Your task to perform on an android device: Search for seafood restaurants on Google Maps Image 0: 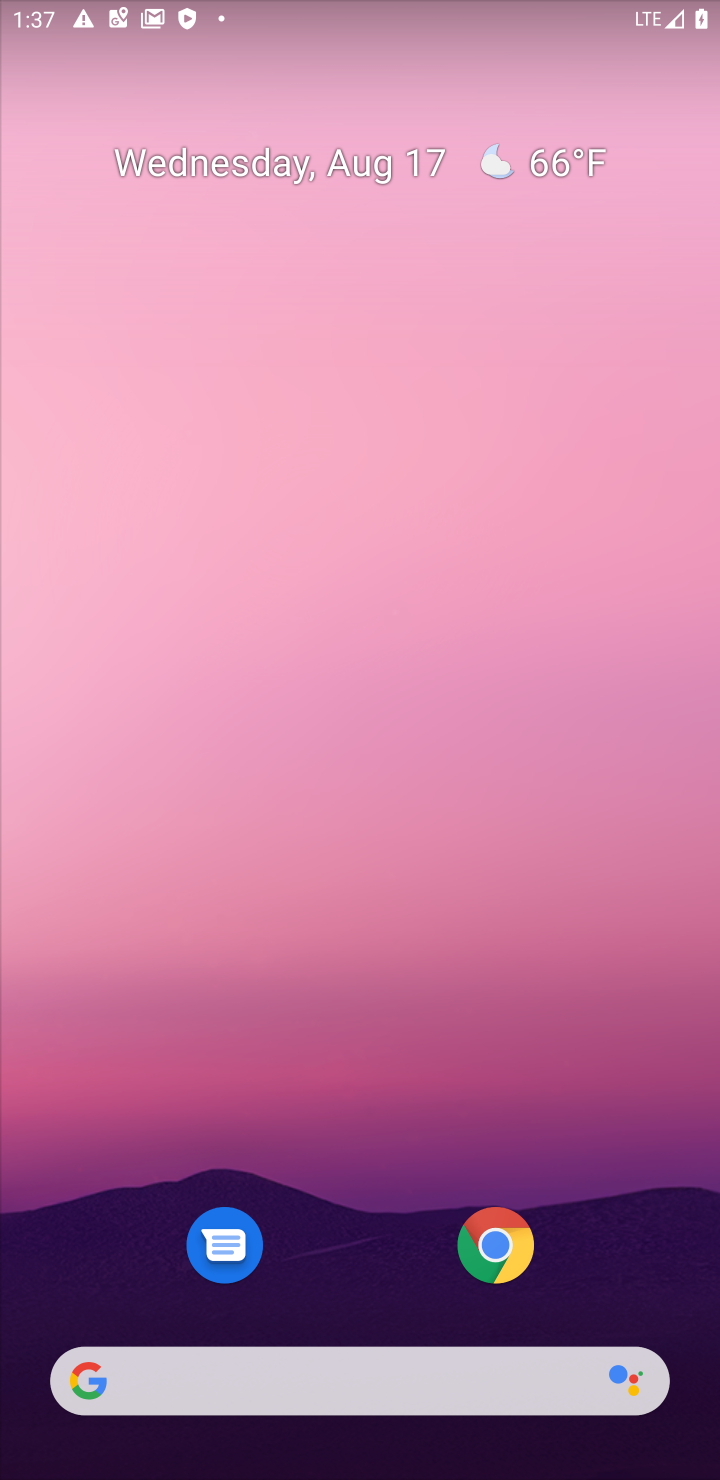
Step 0: drag from (328, 868) to (329, 174)
Your task to perform on an android device: Search for seafood restaurants on Google Maps Image 1: 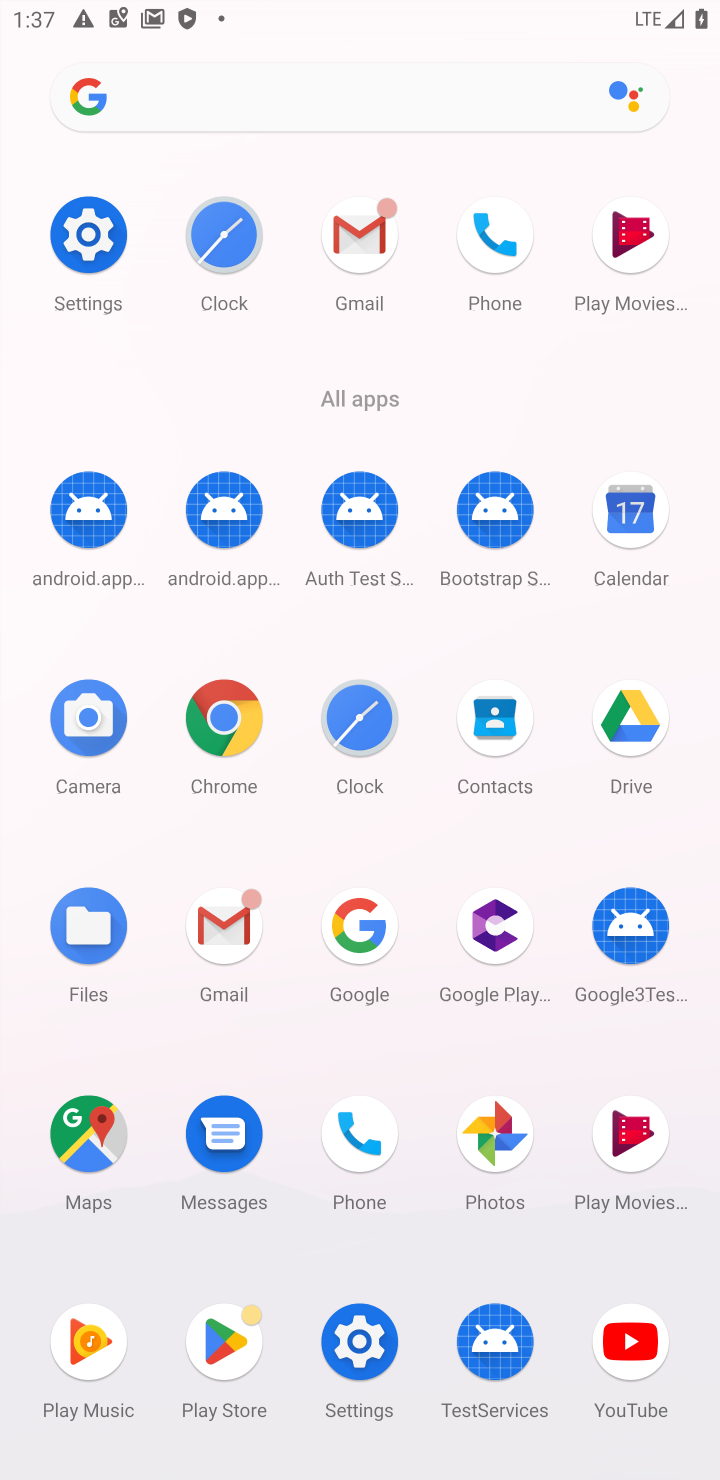
Step 1: click (96, 1116)
Your task to perform on an android device: Search for seafood restaurants on Google Maps Image 2: 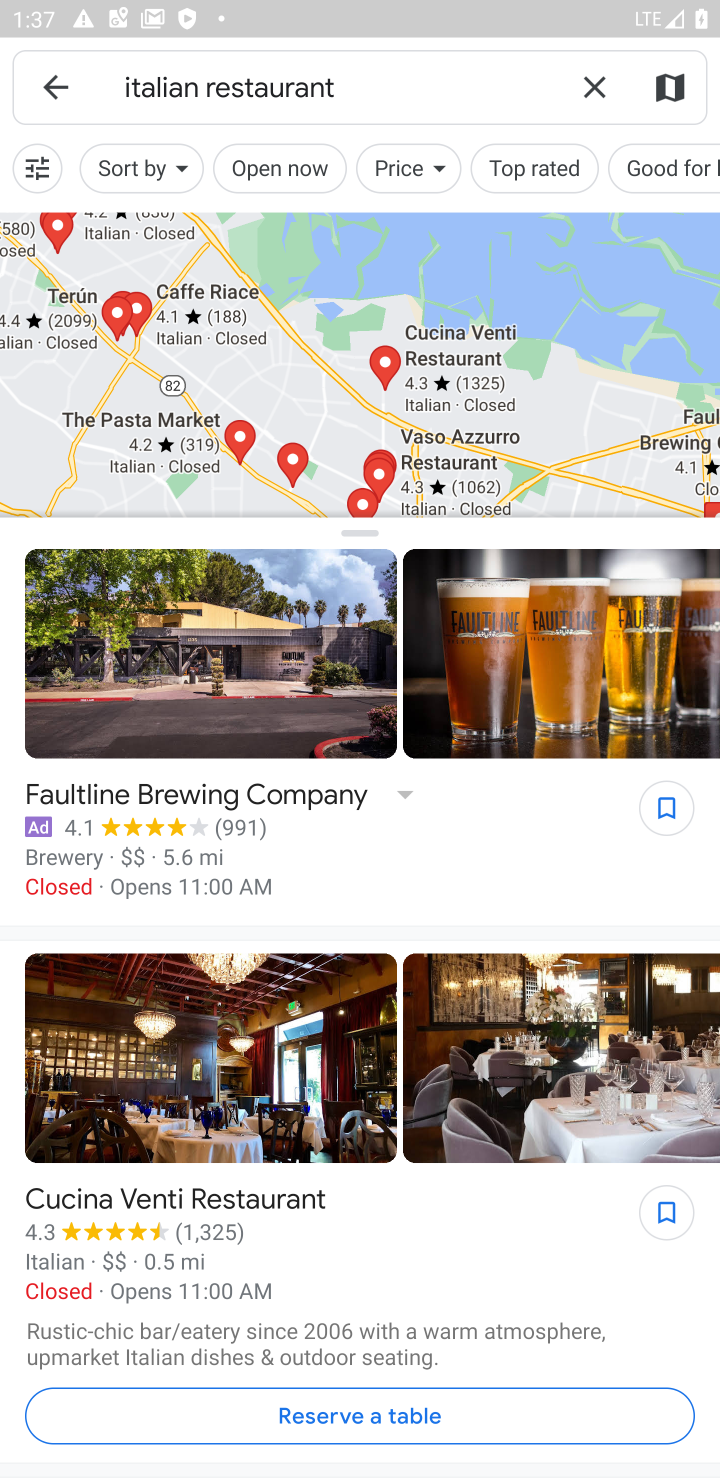
Step 2: task complete